Your task to perform on an android device: open app "AliExpress" Image 0: 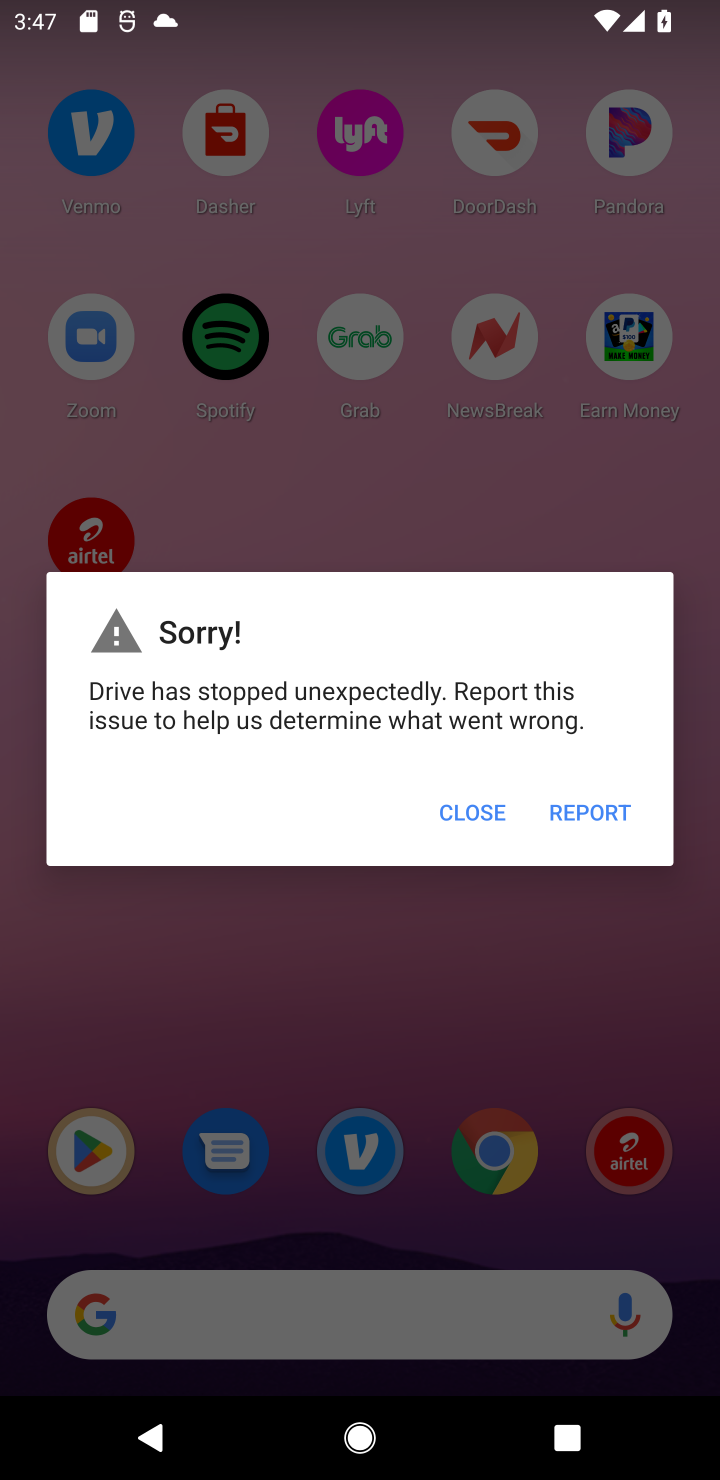
Step 0: press home button
Your task to perform on an android device: open app "AliExpress" Image 1: 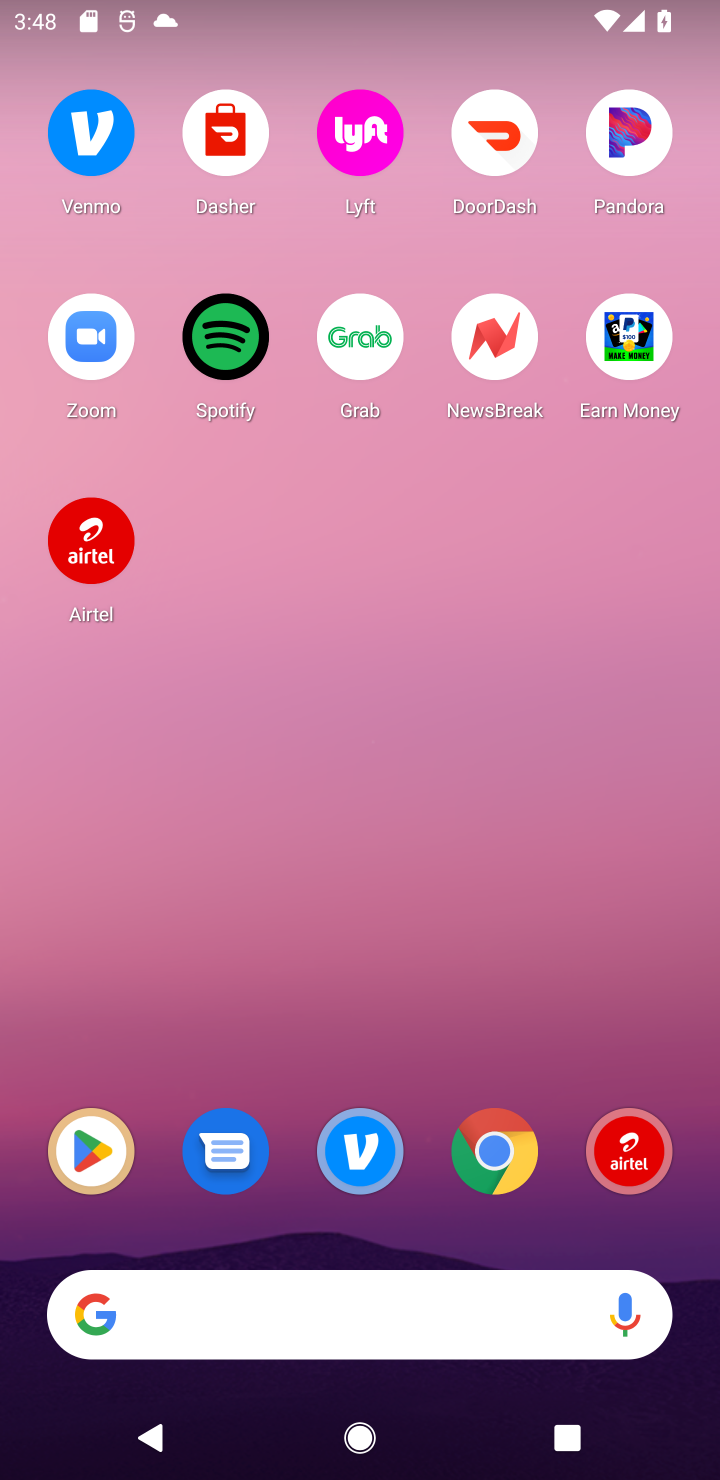
Step 1: drag from (345, 1267) to (341, 449)
Your task to perform on an android device: open app "AliExpress" Image 2: 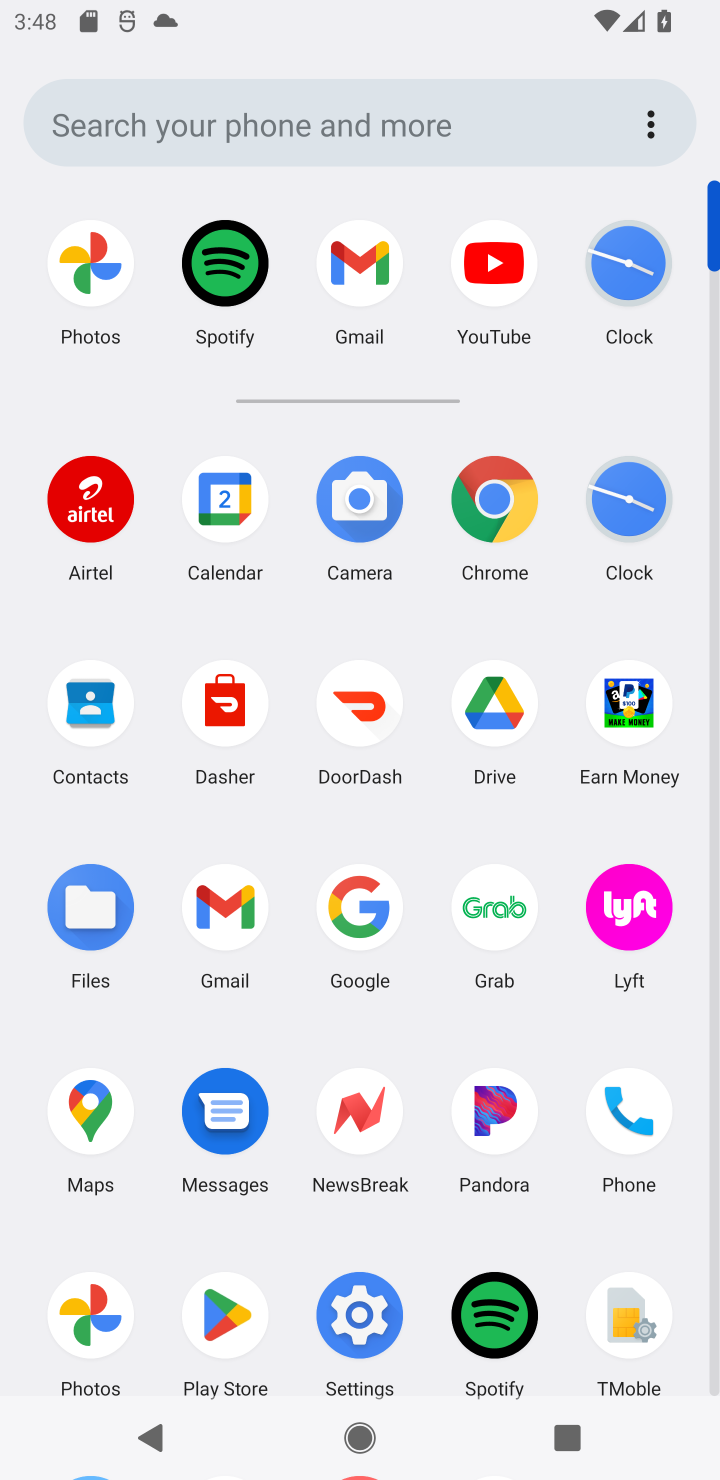
Step 2: drag from (378, 853) to (446, 201)
Your task to perform on an android device: open app "AliExpress" Image 3: 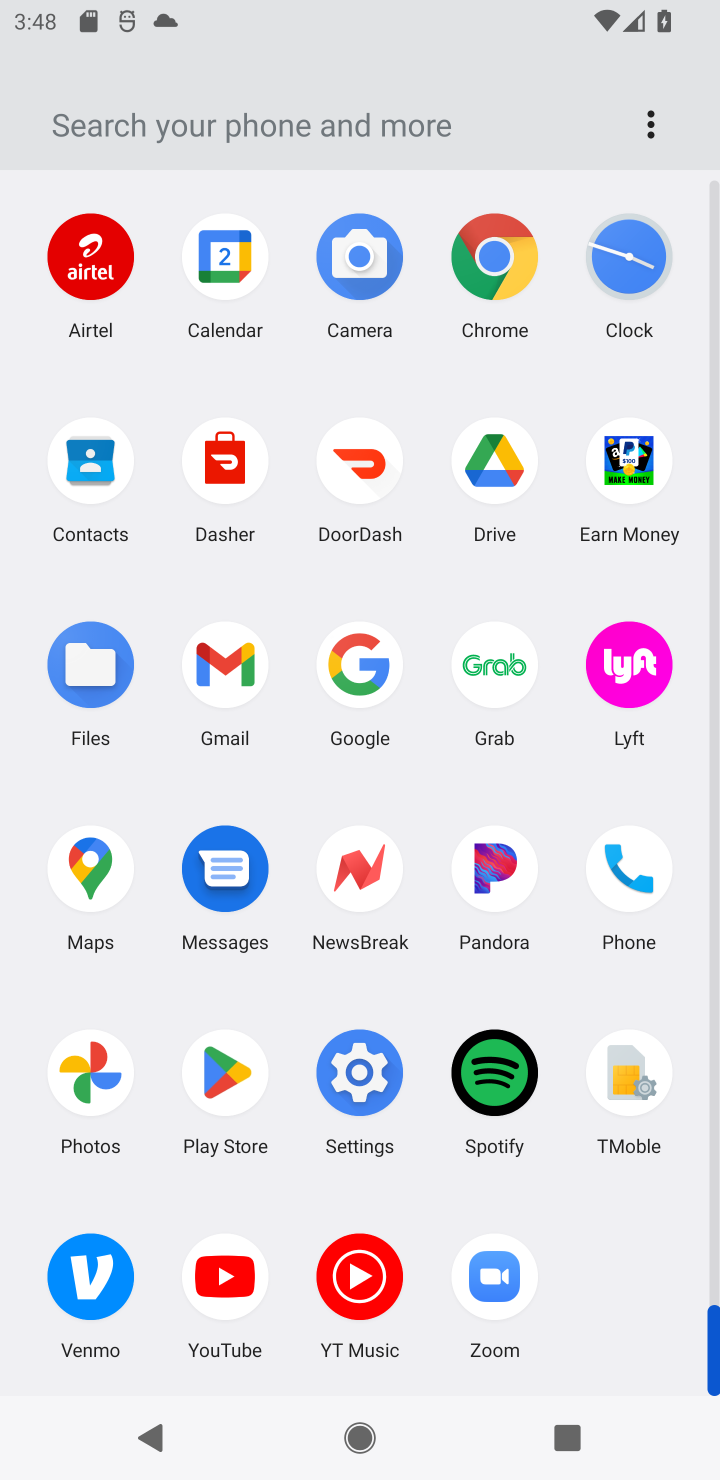
Step 3: click (238, 1093)
Your task to perform on an android device: open app "AliExpress" Image 4: 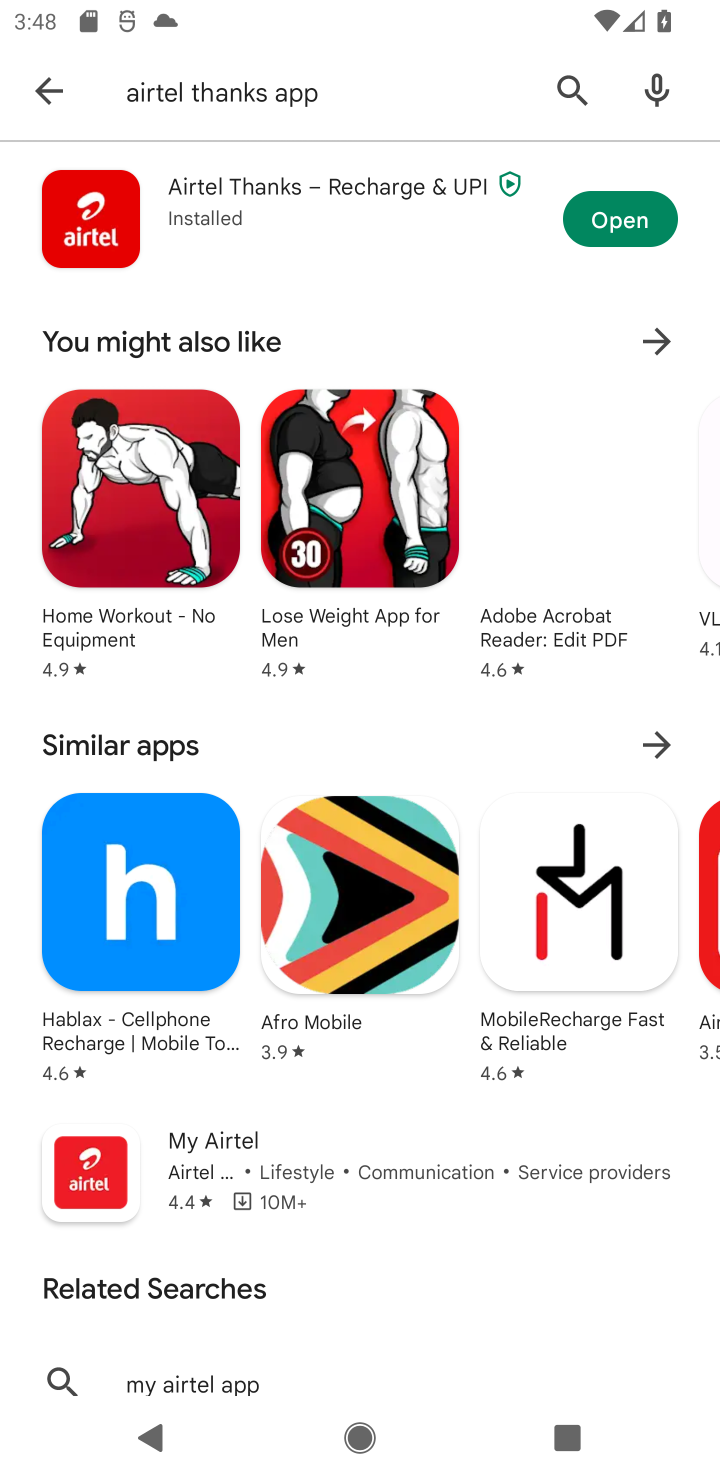
Step 4: click (49, 83)
Your task to perform on an android device: open app "AliExpress" Image 5: 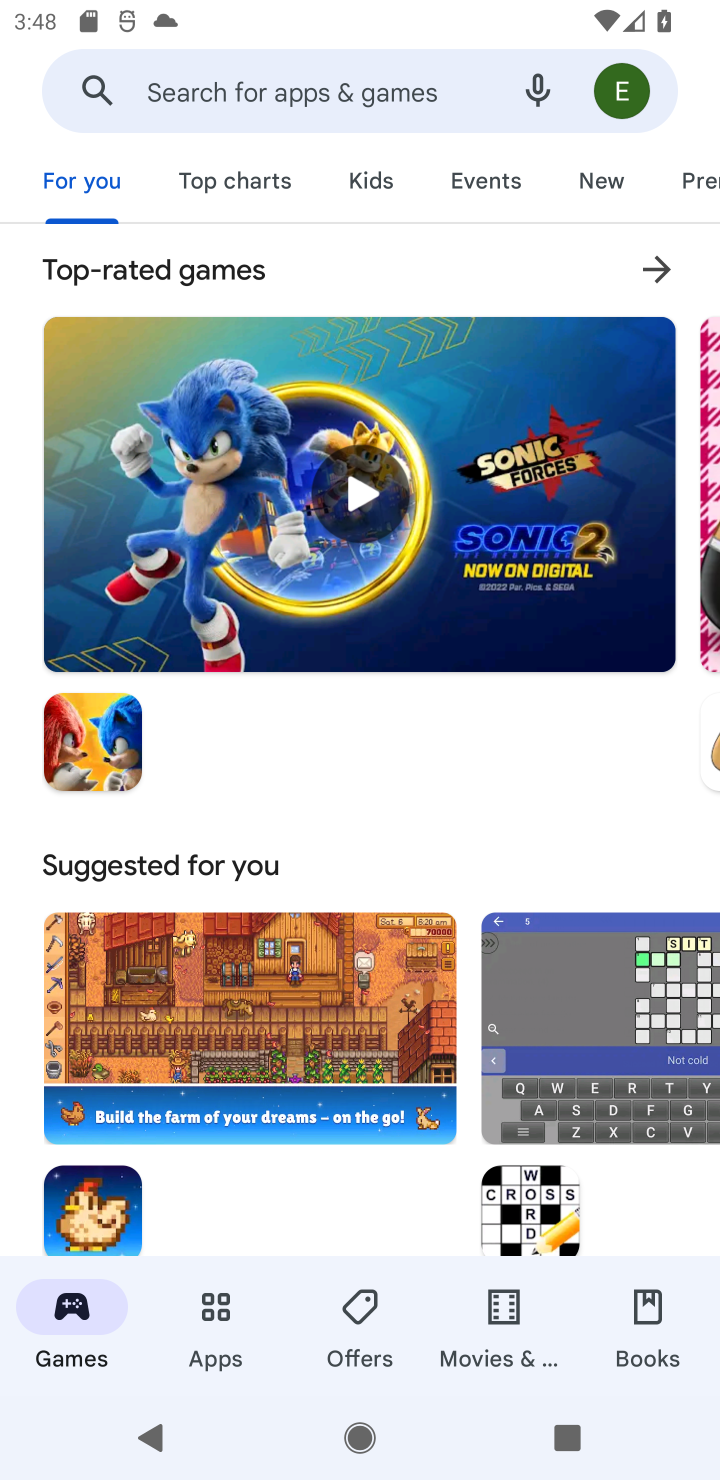
Step 5: click (196, 87)
Your task to perform on an android device: open app "AliExpress" Image 6: 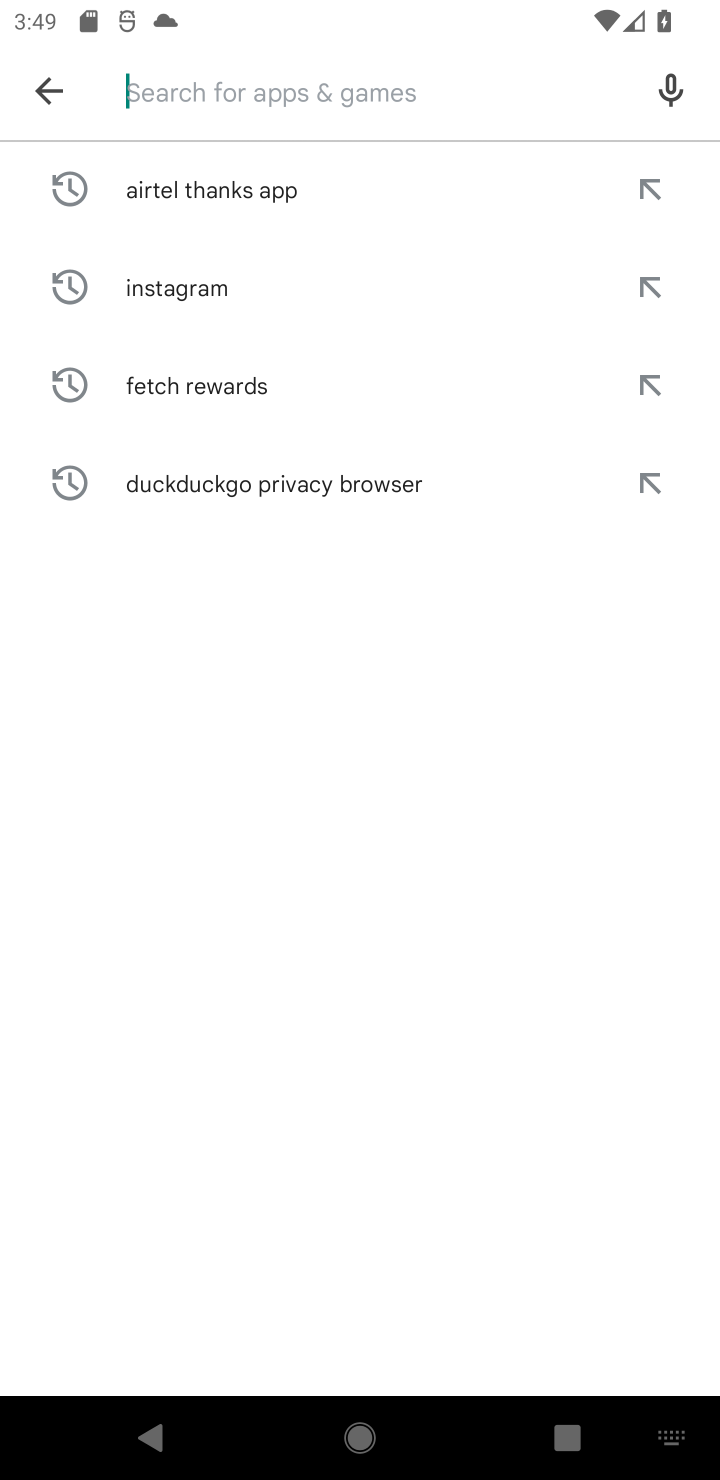
Step 6: type "AliExpress"
Your task to perform on an android device: open app "AliExpress" Image 7: 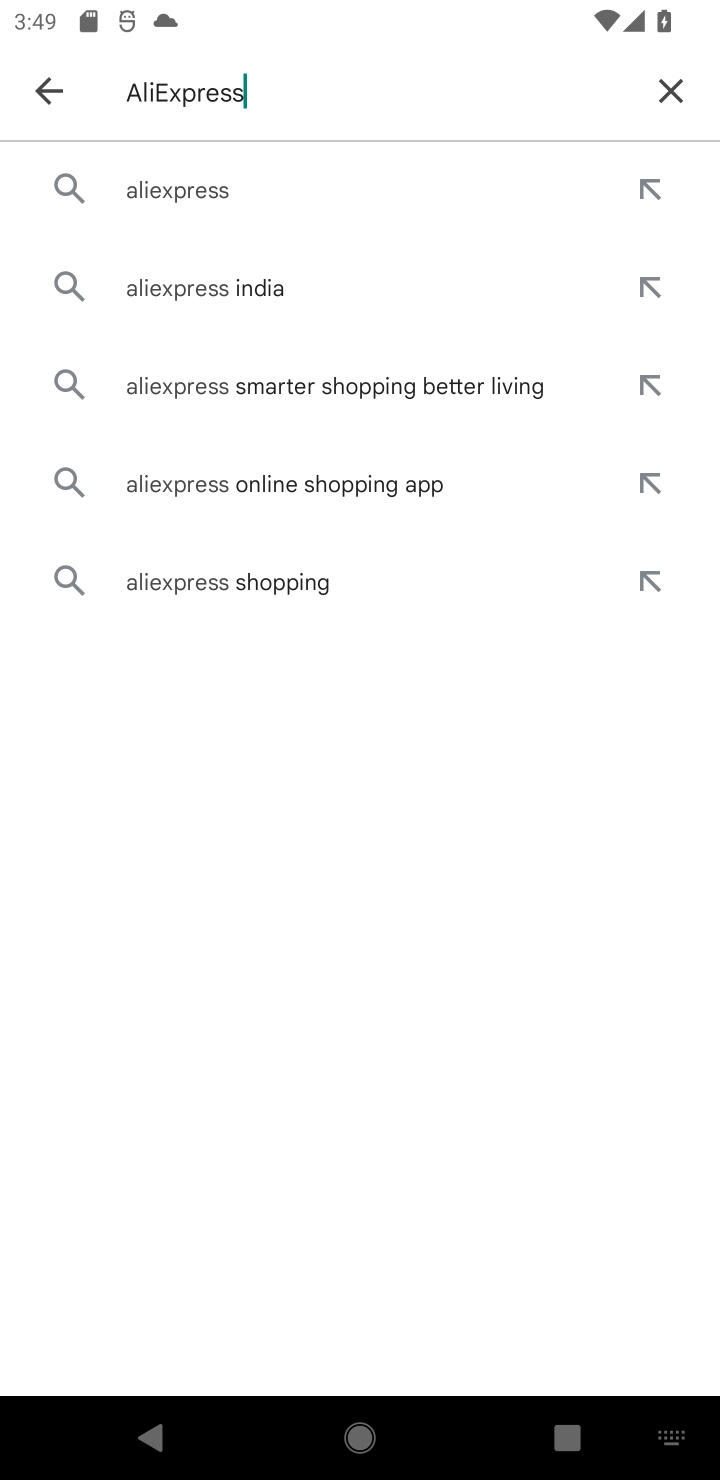
Step 7: click (200, 180)
Your task to perform on an android device: open app "AliExpress" Image 8: 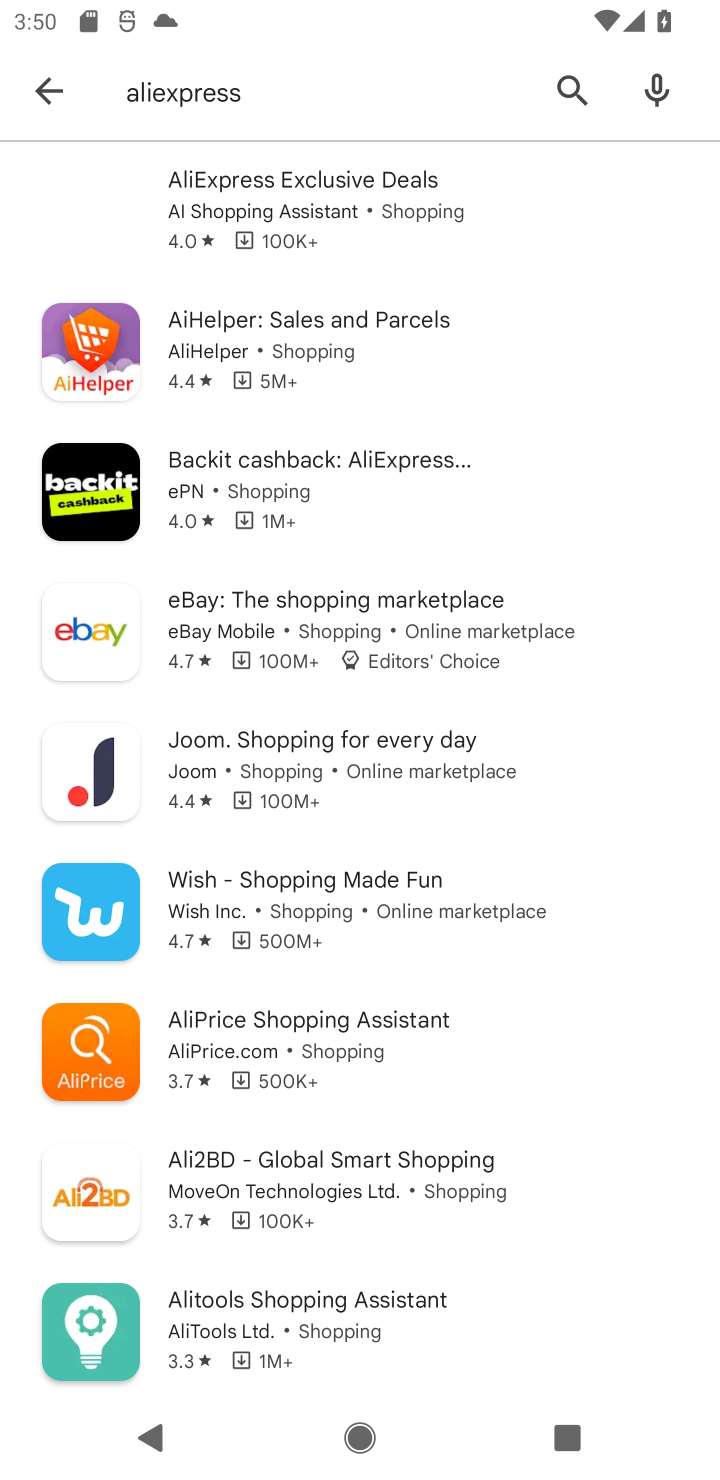
Step 8: click (349, 199)
Your task to perform on an android device: open app "AliExpress" Image 9: 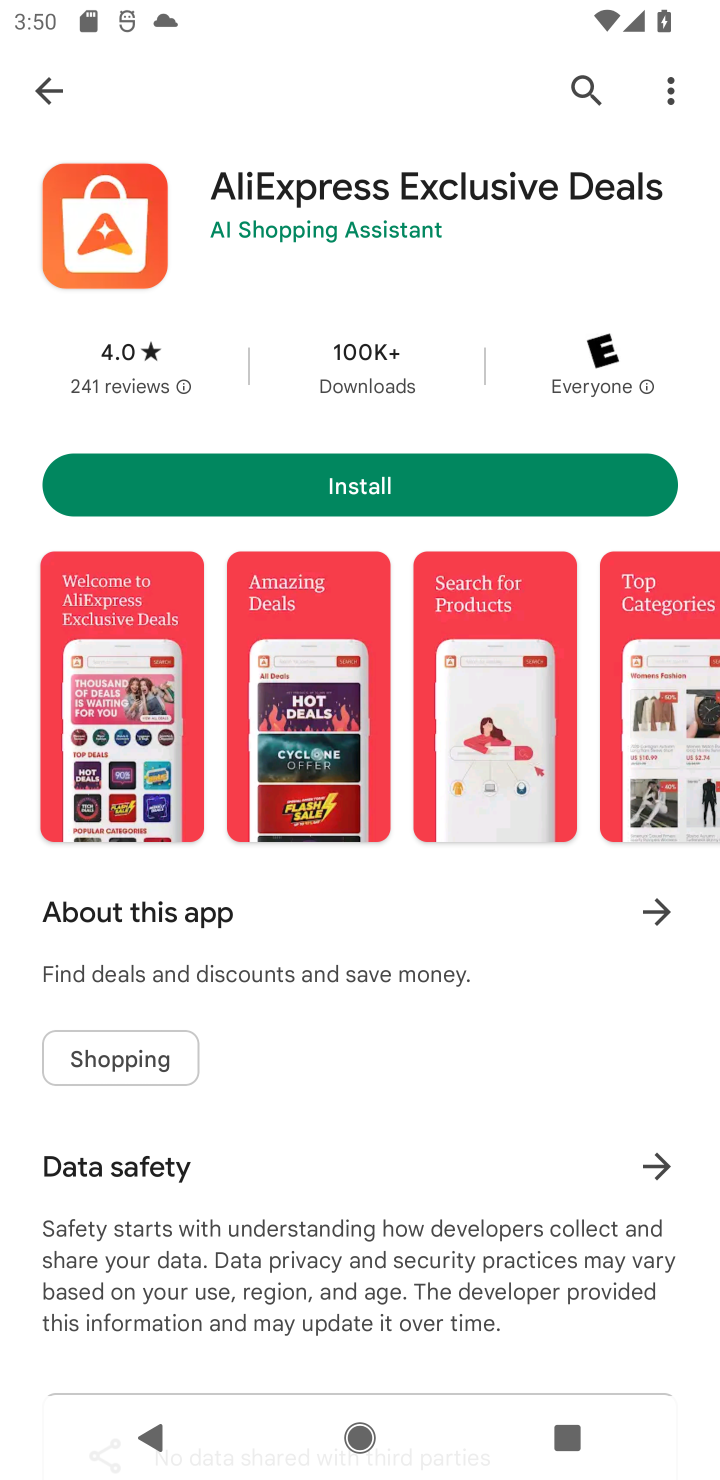
Step 9: task complete